Your task to perform on an android device: open a new tab in the chrome app Image 0: 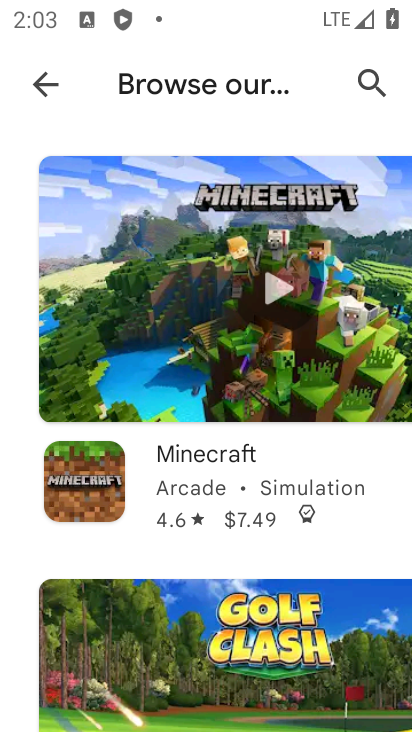
Step 0: press home button
Your task to perform on an android device: open a new tab in the chrome app Image 1: 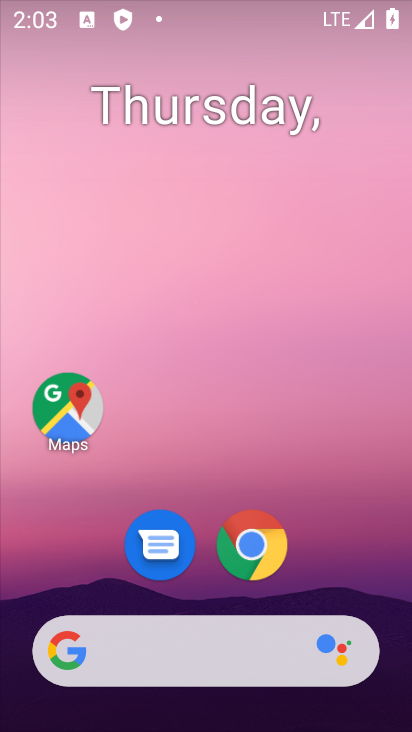
Step 1: drag from (302, 617) to (317, 13)
Your task to perform on an android device: open a new tab in the chrome app Image 2: 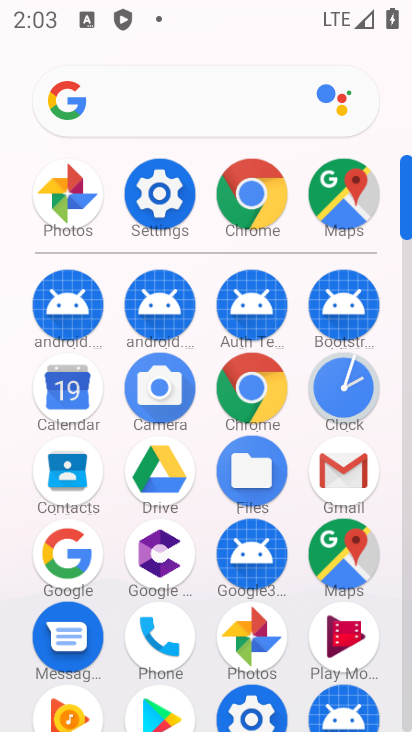
Step 2: click (266, 396)
Your task to perform on an android device: open a new tab in the chrome app Image 3: 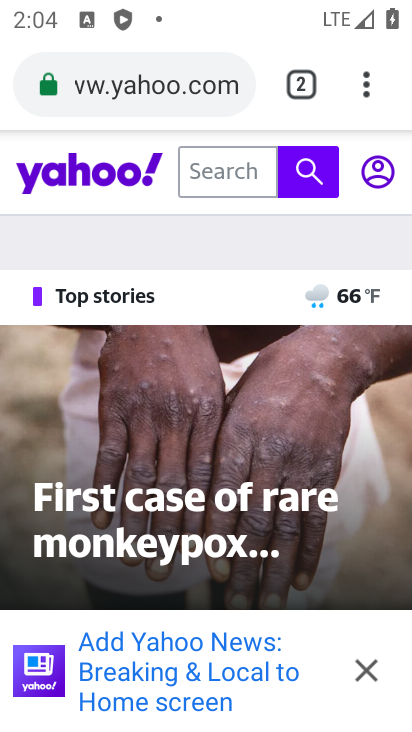
Step 3: task complete